Your task to perform on an android device: turn off location Image 0: 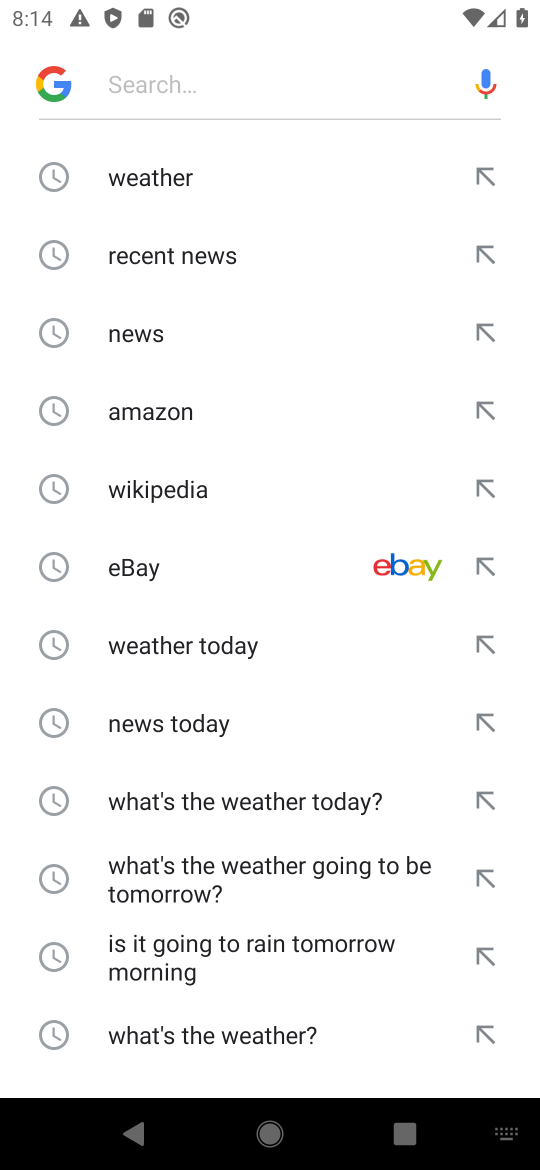
Step 0: press home button
Your task to perform on an android device: turn off location Image 1: 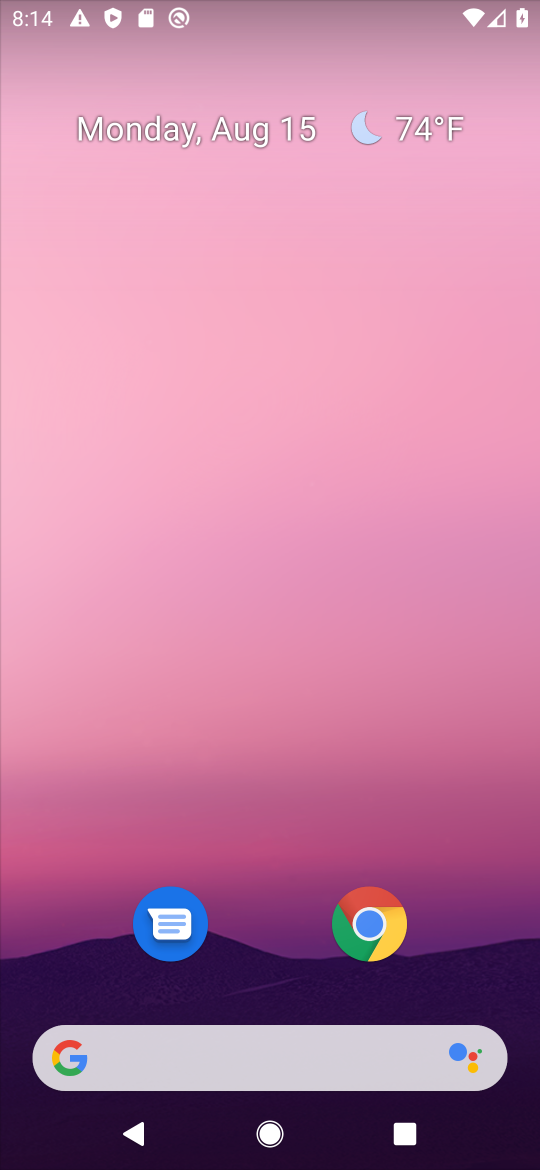
Step 1: drag from (509, 1003) to (469, 188)
Your task to perform on an android device: turn off location Image 2: 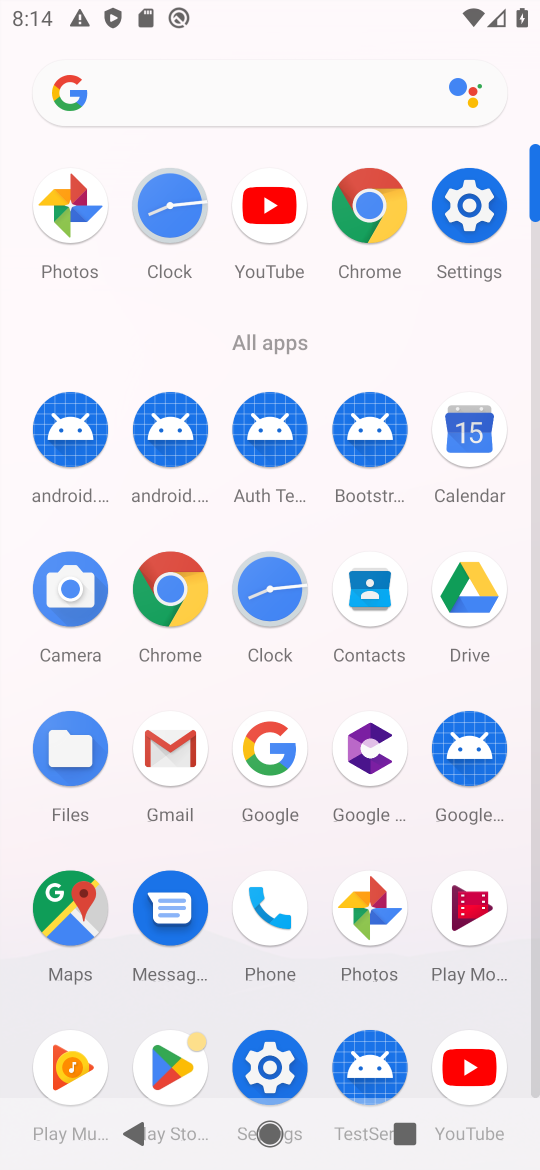
Step 2: click (269, 1067)
Your task to perform on an android device: turn off location Image 3: 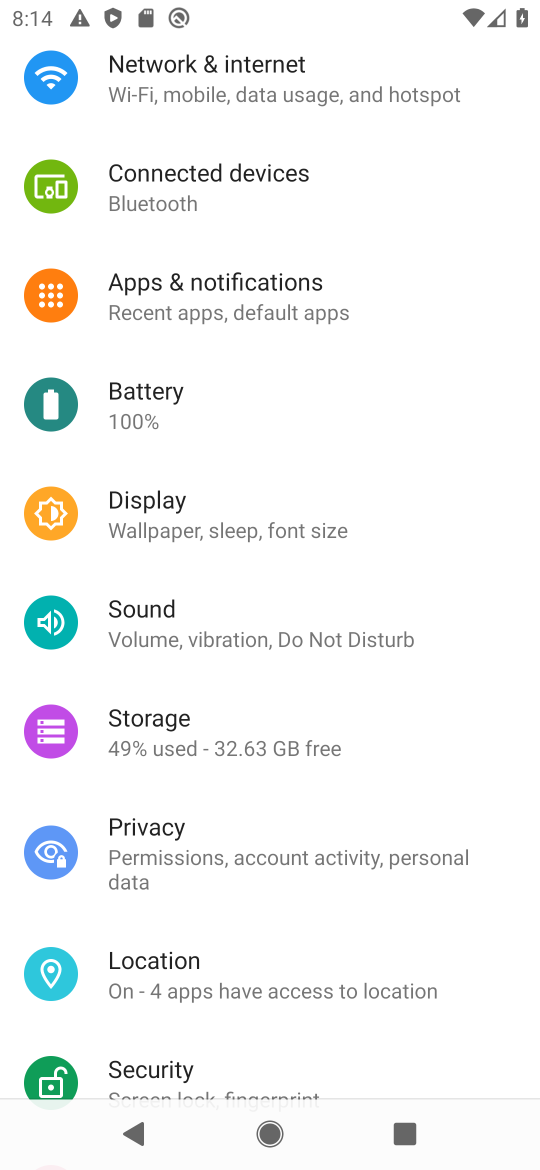
Step 3: click (199, 981)
Your task to perform on an android device: turn off location Image 4: 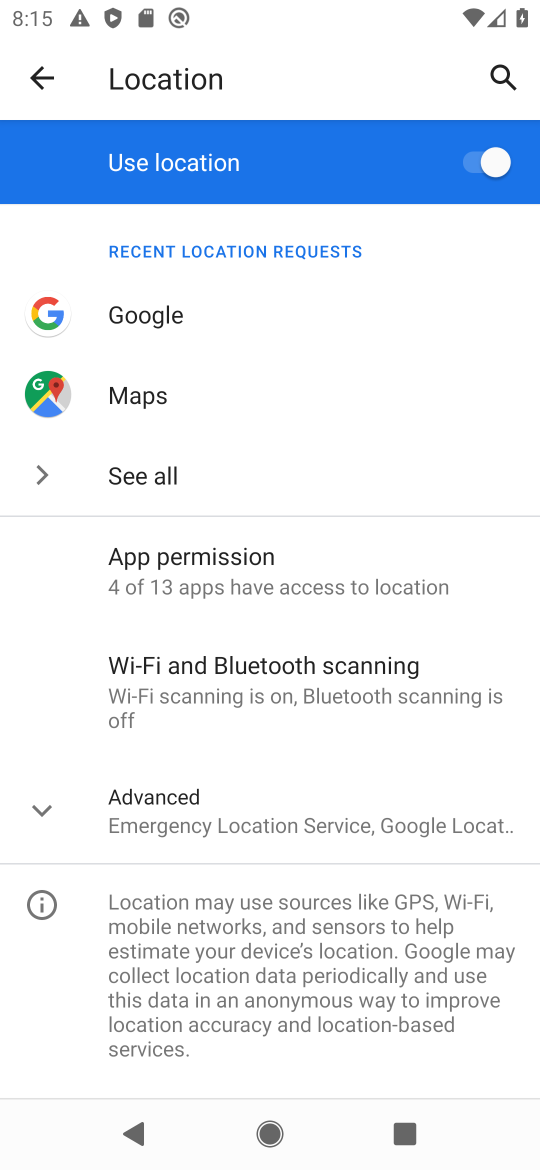
Step 4: click (467, 168)
Your task to perform on an android device: turn off location Image 5: 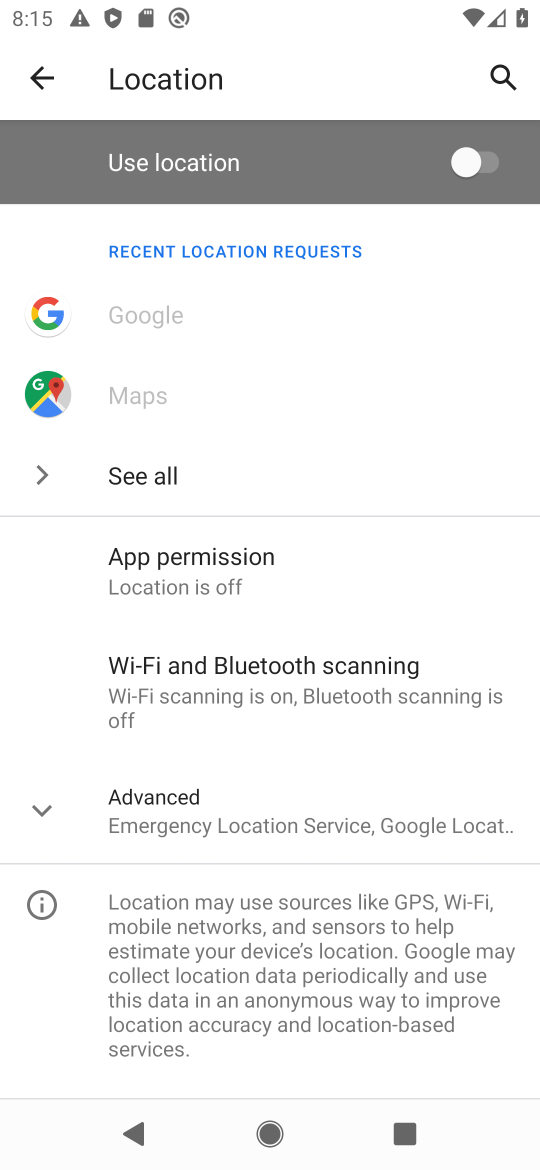
Step 5: task complete